Your task to perform on an android device: read, delete, or share a saved page in the chrome app Image 0: 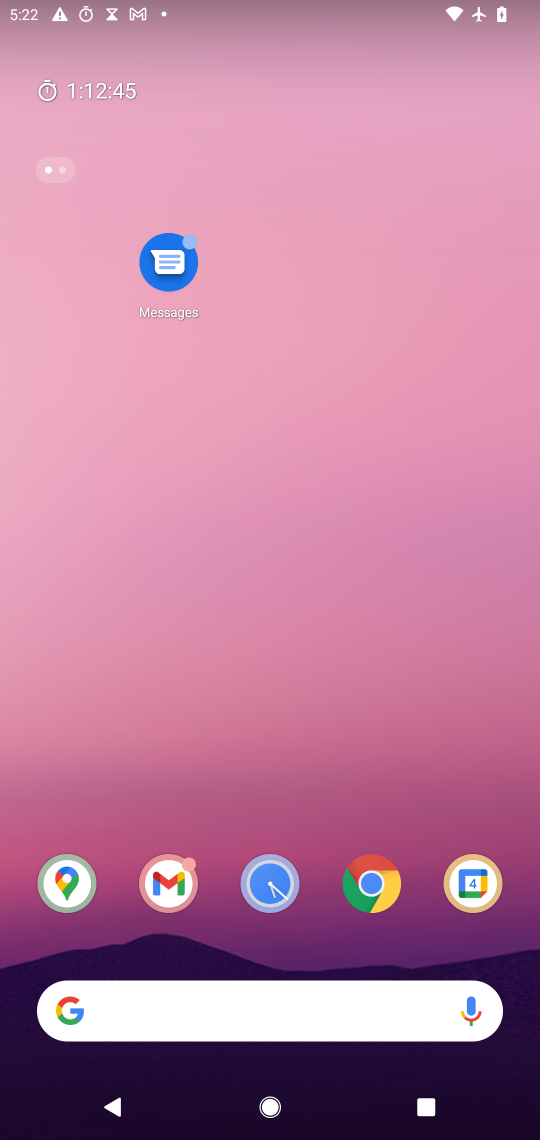
Step 0: click (377, 883)
Your task to perform on an android device: read, delete, or share a saved page in the chrome app Image 1: 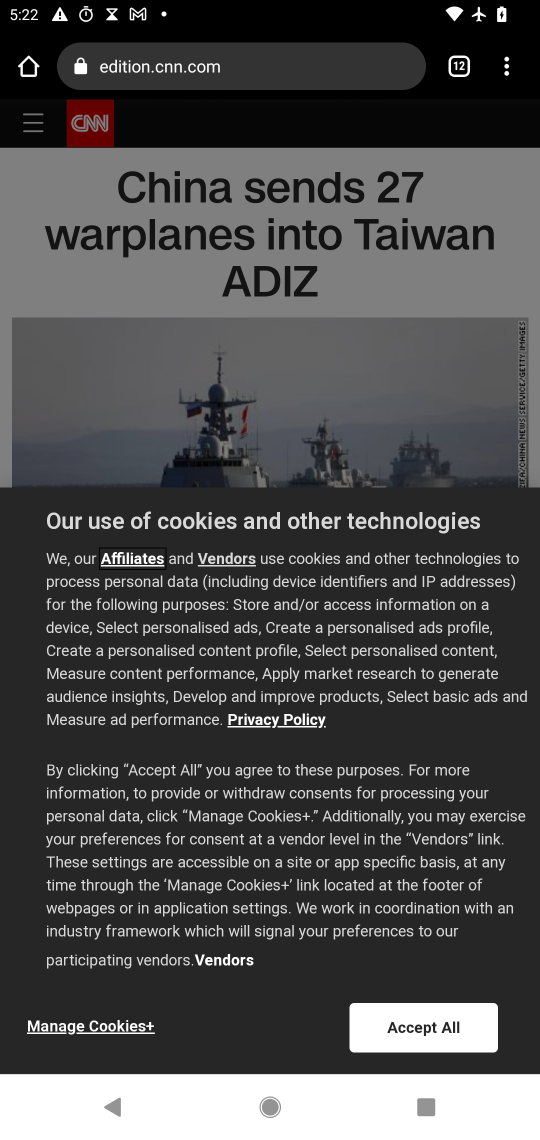
Step 1: click (508, 74)
Your task to perform on an android device: read, delete, or share a saved page in the chrome app Image 2: 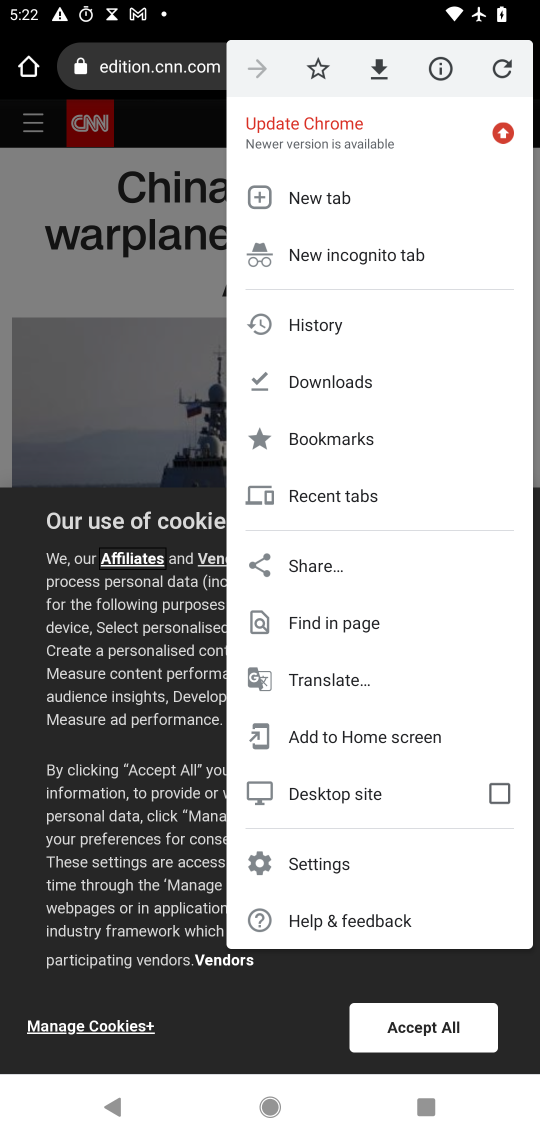
Step 2: click (332, 381)
Your task to perform on an android device: read, delete, or share a saved page in the chrome app Image 3: 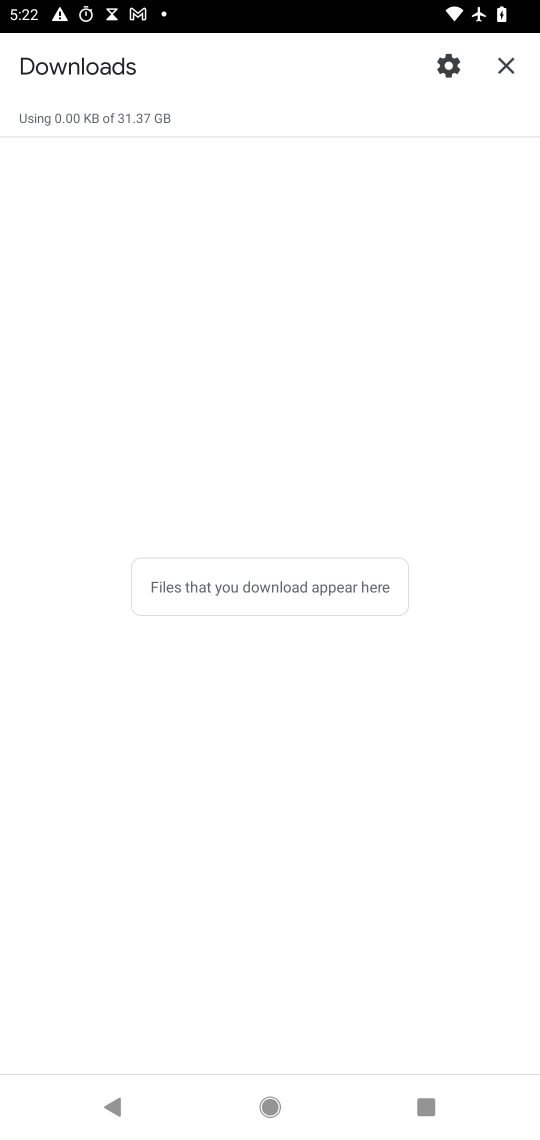
Step 3: task complete